Your task to perform on an android device: move an email to a new category in the gmail app Image 0: 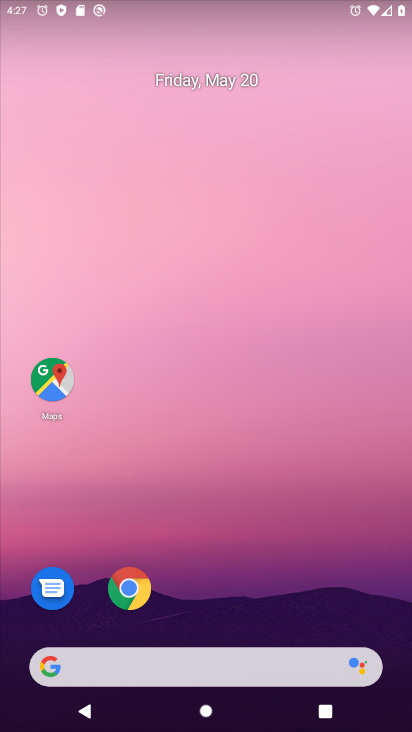
Step 0: drag from (247, 579) to (255, 136)
Your task to perform on an android device: move an email to a new category in the gmail app Image 1: 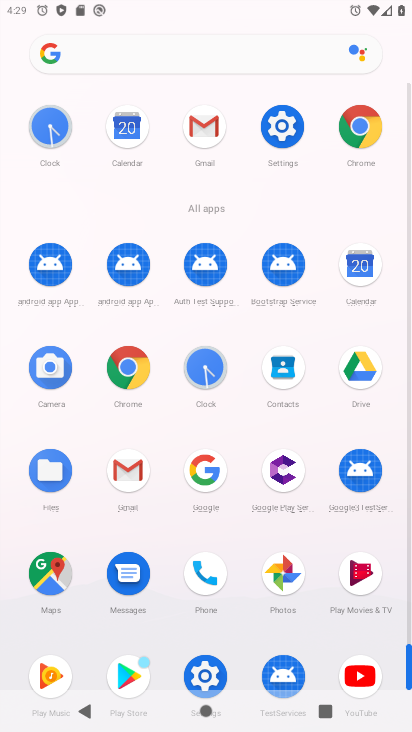
Step 1: click (131, 476)
Your task to perform on an android device: move an email to a new category in the gmail app Image 2: 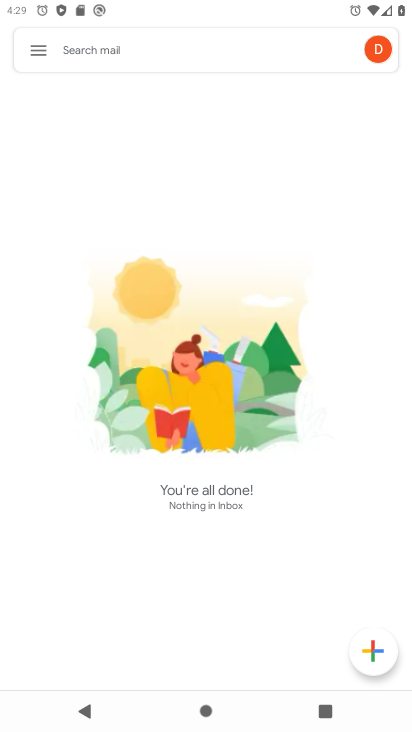
Step 2: task complete